Your task to perform on an android device: turn vacation reply on in the gmail app Image 0: 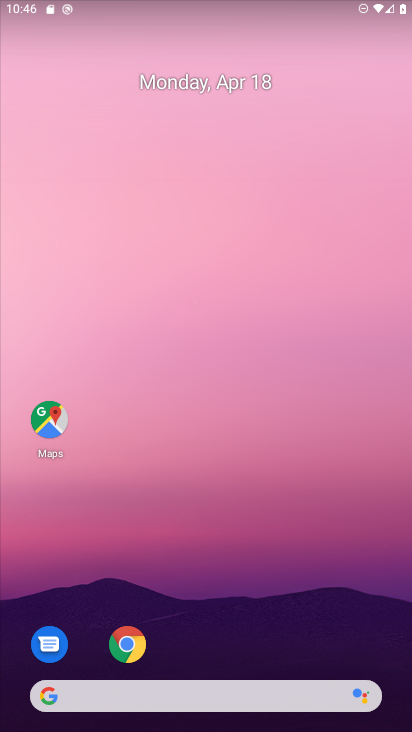
Step 0: drag from (205, 515) to (264, 119)
Your task to perform on an android device: turn vacation reply on in the gmail app Image 1: 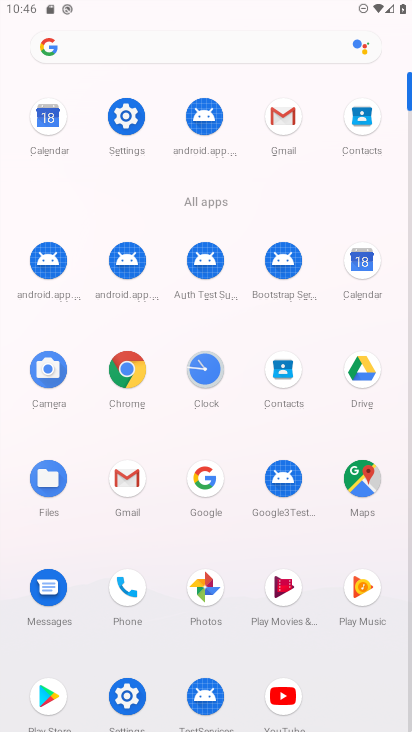
Step 1: click (278, 115)
Your task to perform on an android device: turn vacation reply on in the gmail app Image 2: 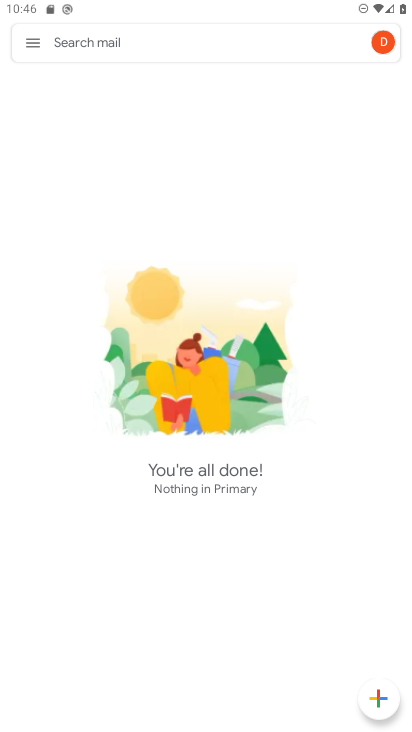
Step 2: click (33, 42)
Your task to perform on an android device: turn vacation reply on in the gmail app Image 3: 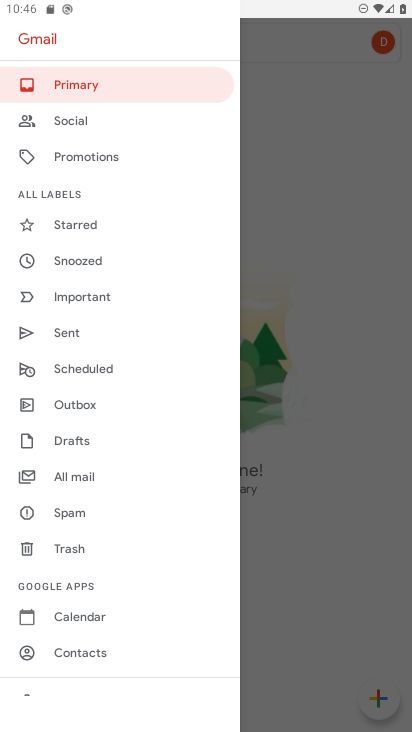
Step 3: drag from (116, 624) to (168, 147)
Your task to perform on an android device: turn vacation reply on in the gmail app Image 4: 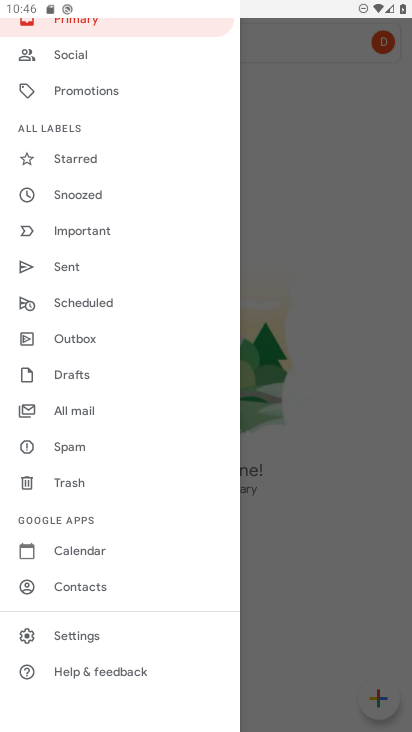
Step 4: click (92, 630)
Your task to perform on an android device: turn vacation reply on in the gmail app Image 5: 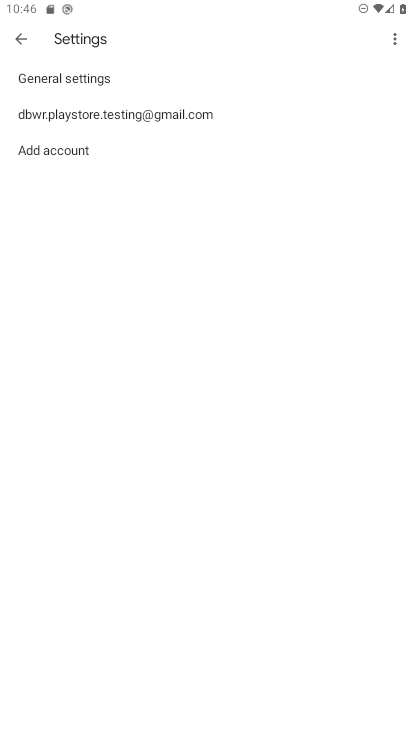
Step 5: click (144, 115)
Your task to perform on an android device: turn vacation reply on in the gmail app Image 6: 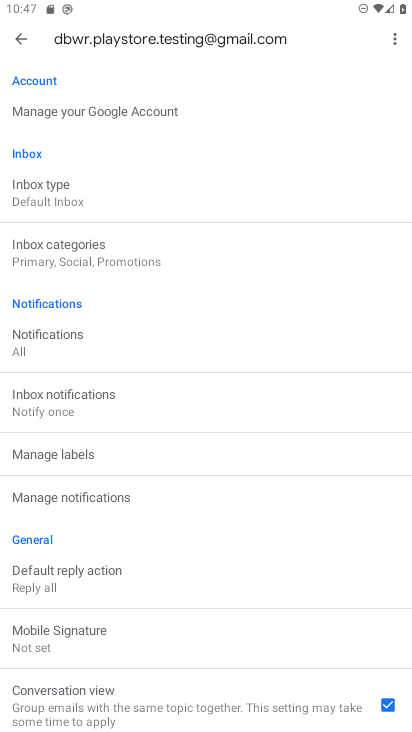
Step 6: drag from (154, 654) to (245, 136)
Your task to perform on an android device: turn vacation reply on in the gmail app Image 7: 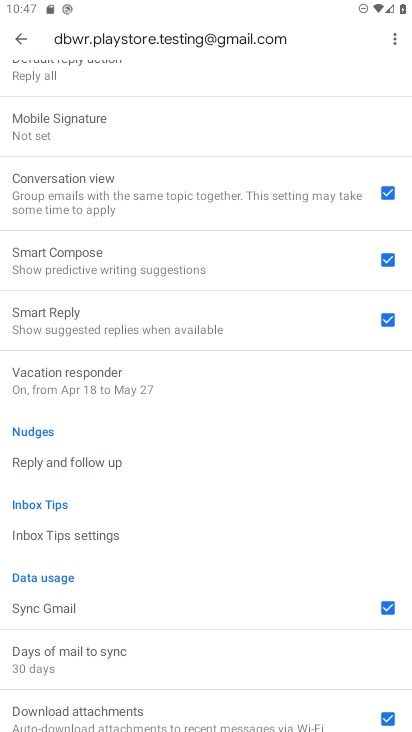
Step 7: click (121, 390)
Your task to perform on an android device: turn vacation reply on in the gmail app Image 8: 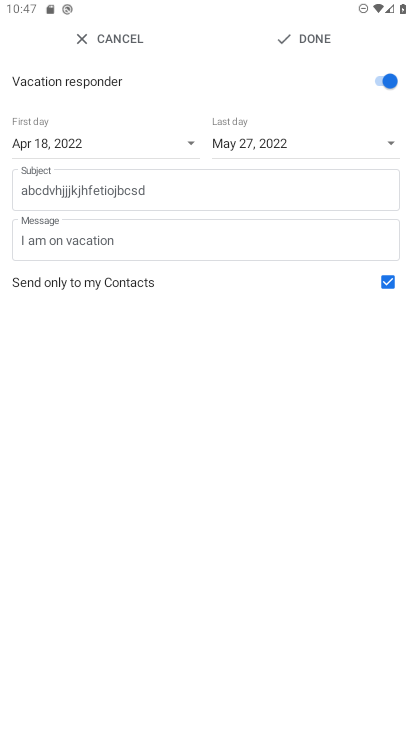
Step 8: task complete